Your task to perform on an android device: read, delete, or share a saved page in the chrome app Image 0: 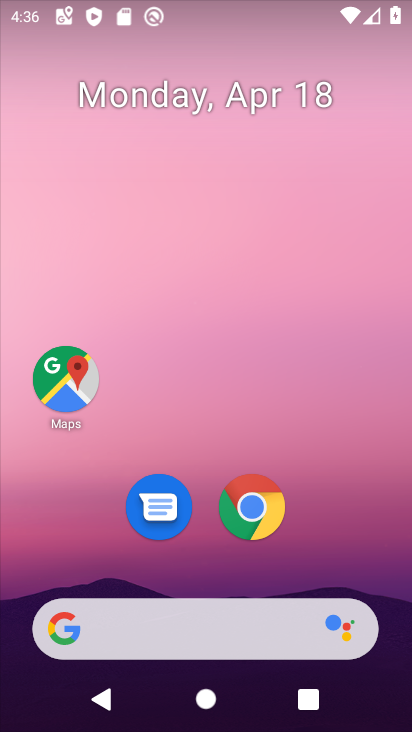
Step 0: drag from (279, 555) to (339, 0)
Your task to perform on an android device: read, delete, or share a saved page in the chrome app Image 1: 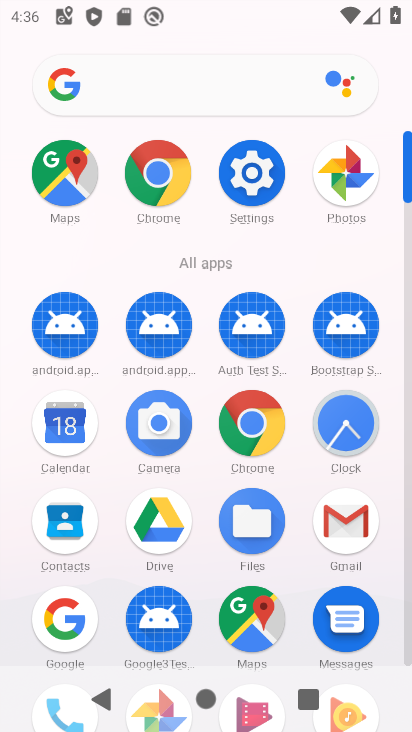
Step 1: click (245, 428)
Your task to perform on an android device: read, delete, or share a saved page in the chrome app Image 2: 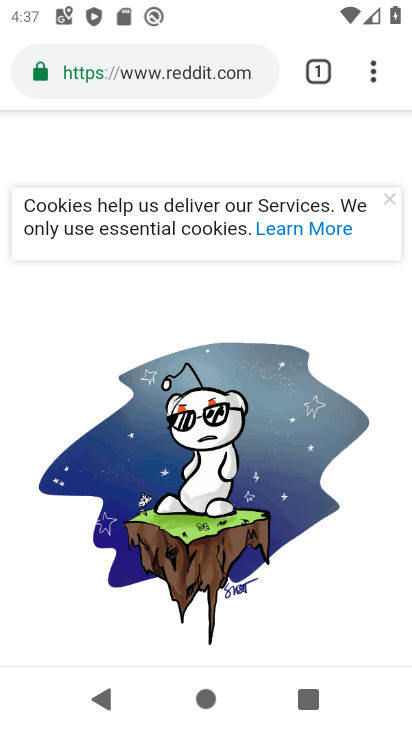
Step 2: click (355, 62)
Your task to perform on an android device: read, delete, or share a saved page in the chrome app Image 3: 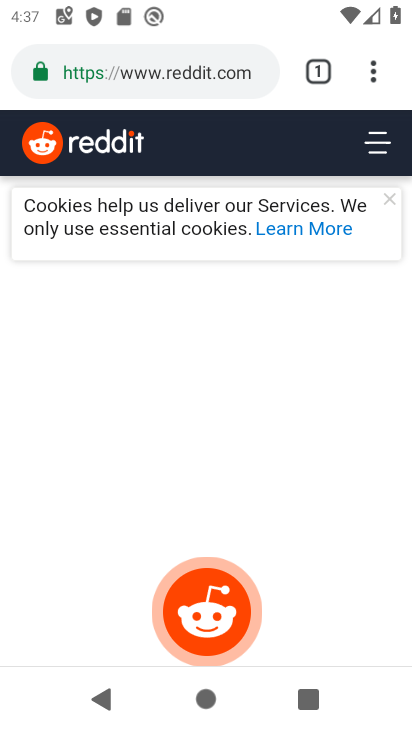
Step 3: click (362, 68)
Your task to perform on an android device: read, delete, or share a saved page in the chrome app Image 4: 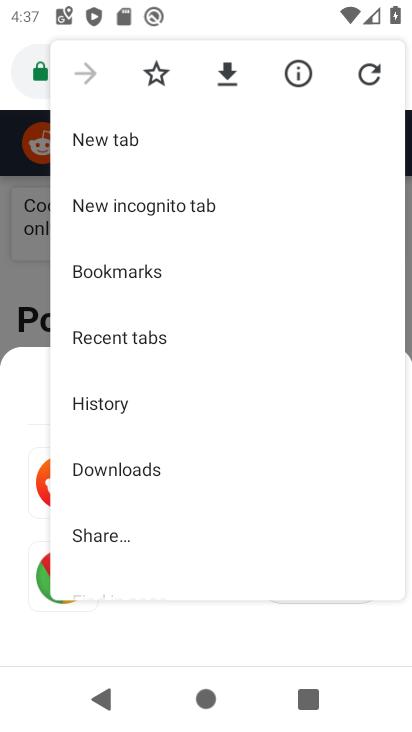
Step 4: drag from (195, 558) to (199, 209)
Your task to perform on an android device: read, delete, or share a saved page in the chrome app Image 5: 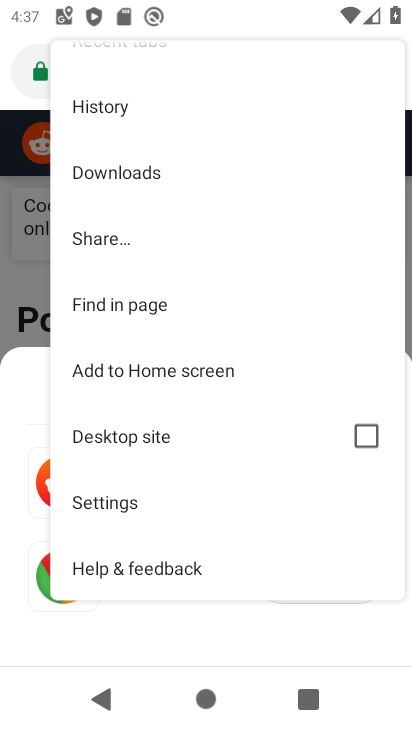
Step 5: click (154, 182)
Your task to perform on an android device: read, delete, or share a saved page in the chrome app Image 6: 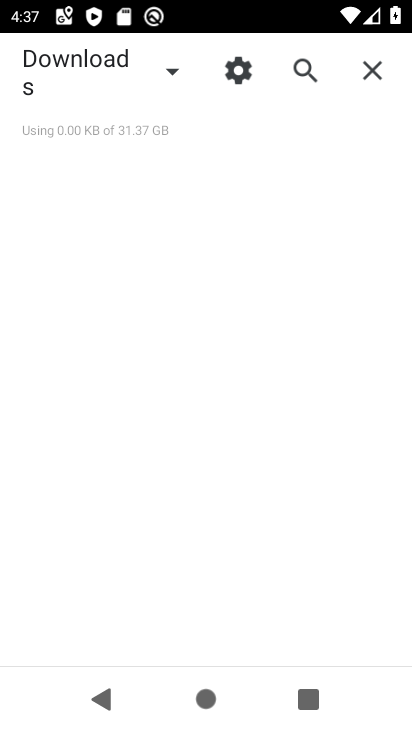
Step 6: click (173, 68)
Your task to perform on an android device: read, delete, or share a saved page in the chrome app Image 7: 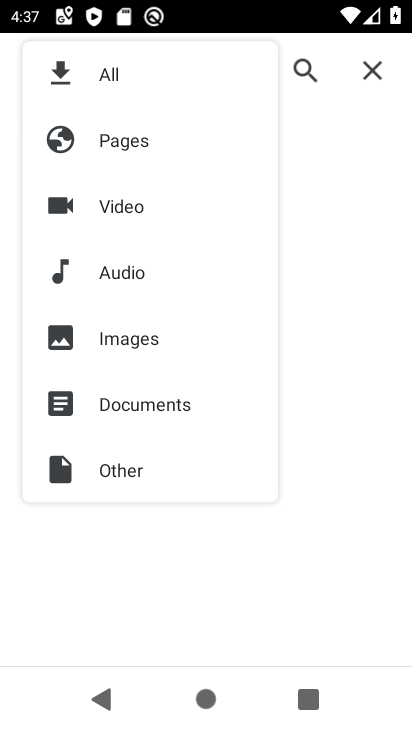
Step 7: task complete